Your task to perform on an android device: Open the calendar and show me this week's events? Image 0: 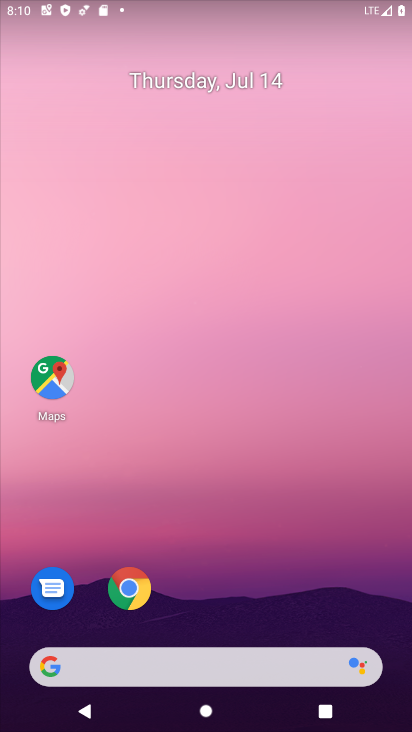
Step 0: drag from (407, 665) to (209, 21)
Your task to perform on an android device: Open the calendar and show me this week's events? Image 1: 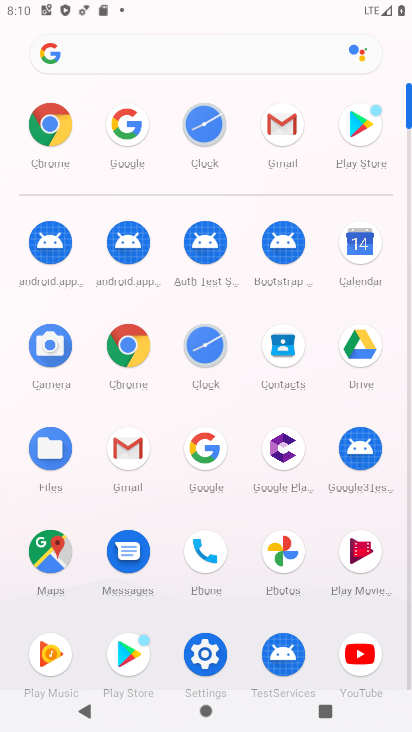
Step 1: click (350, 258)
Your task to perform on an android device: Open the calendar and show me this week's events? Image 2: 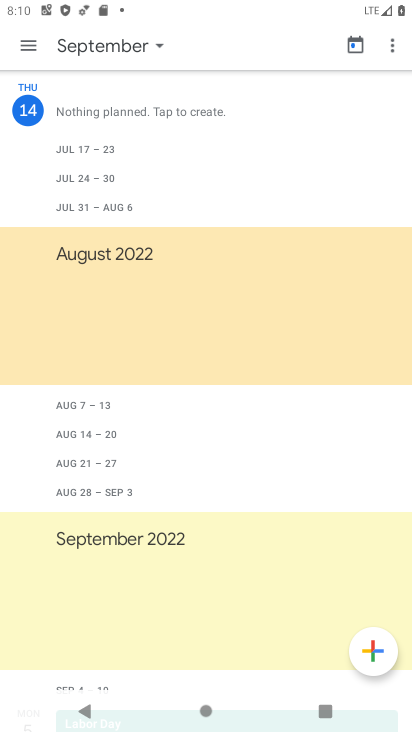
Step 2: task complete